Your task to perform on an android device: Go to accessibility settings Image 0: 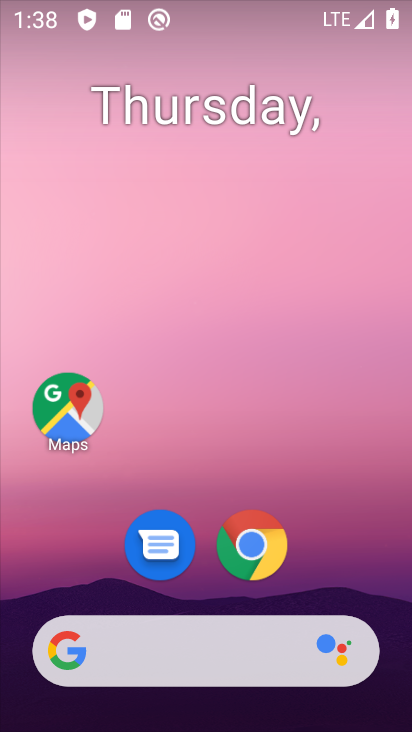
Step 0: drag from (233, 673) to (210, 6)
Your task to perform on an android device: Go to accessibility settings Image 1: 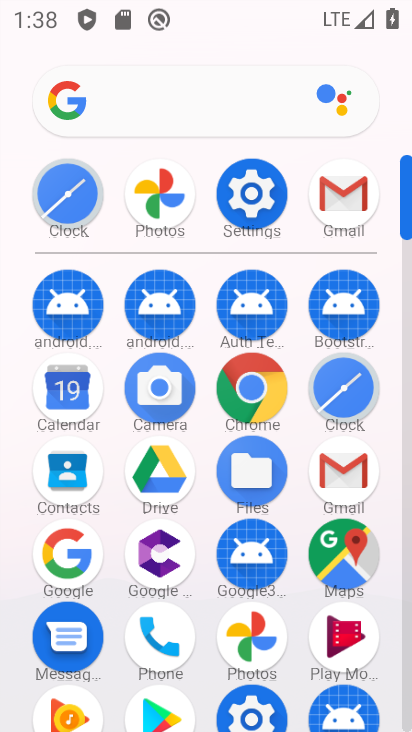
Step 1: click (257, 186)
Your task to perform on an android device: Go to accessibility settings Image 2: 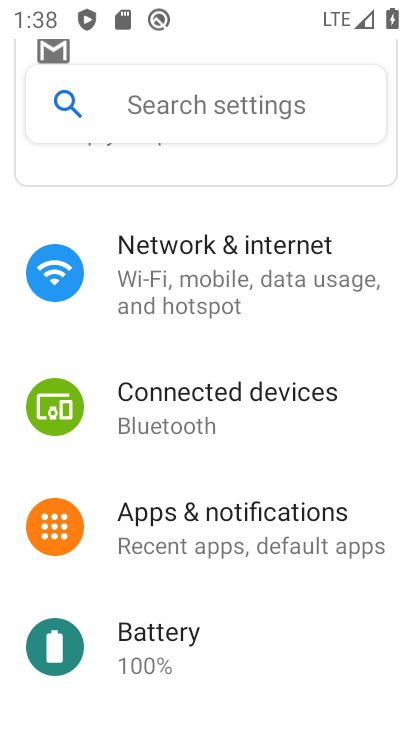
Step 2: drag from (275, 670) to (259, 61)
Your task to perform on an android device: Go to accessibility settings Image 3: 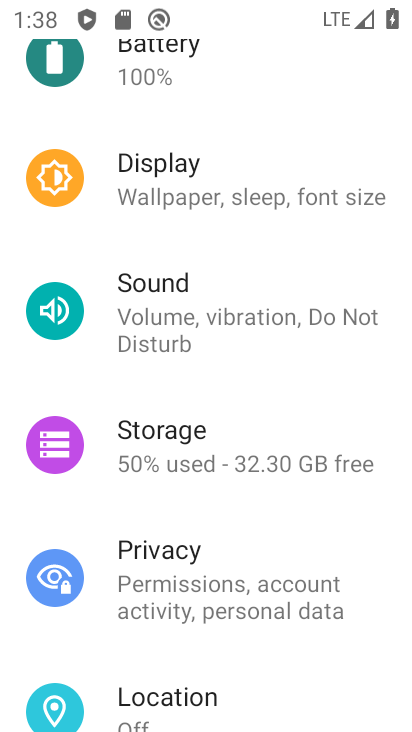
Step 3: drag from (266, 616) to (284, 17)
Your task to perform on an android device: Go to accessibility settings Image 4: 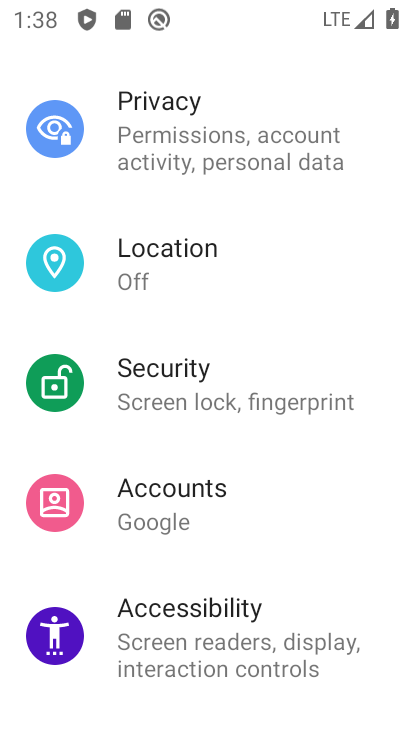
Step 4: click (252, 617)
Your task to perform on an android device: Go to accessibility settings Image 5: 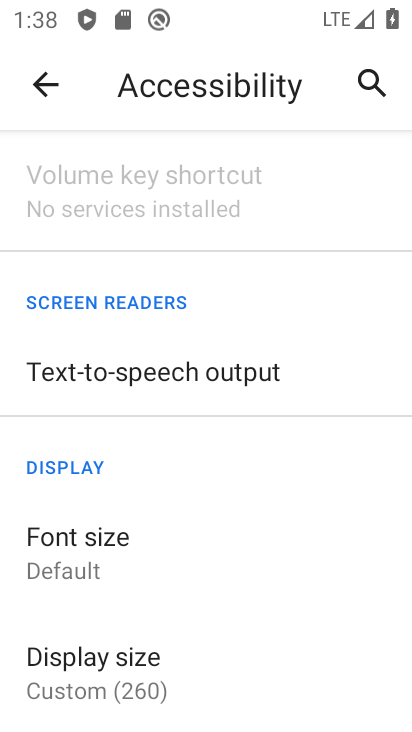
Step 5: task complete